Your task to perform on an android device: Open the map Image 0: 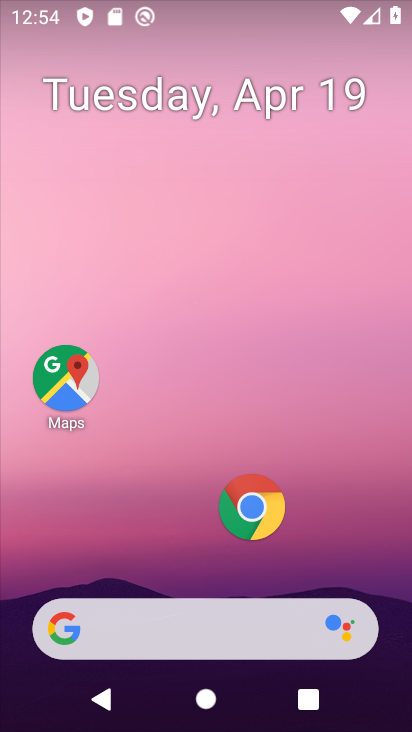
Step 0: click (91, 368)
Your task to perform on an android device: Open the map Image 1: 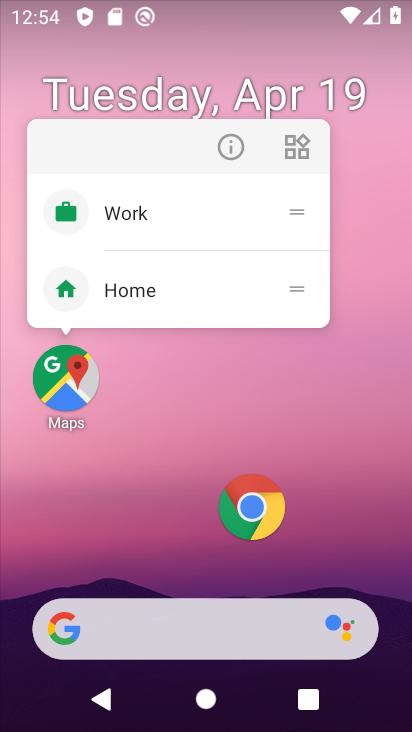
Step 1: click (61, 389)
Your task to perform on an android device: Open the map Image 2: 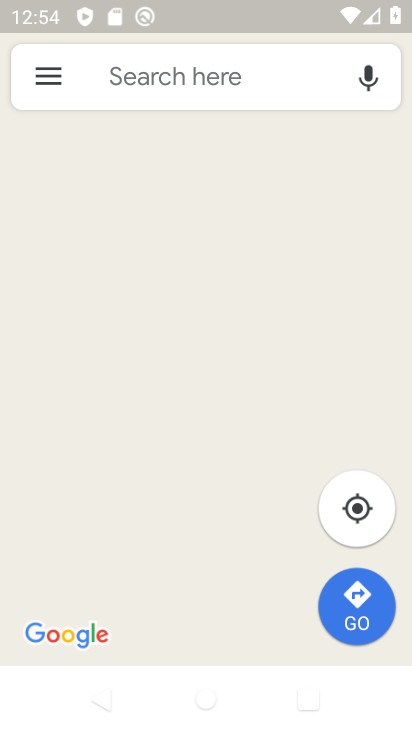
Step 2: task complete